Your task to perform on an android device: Go to ESPN.com Image 0: 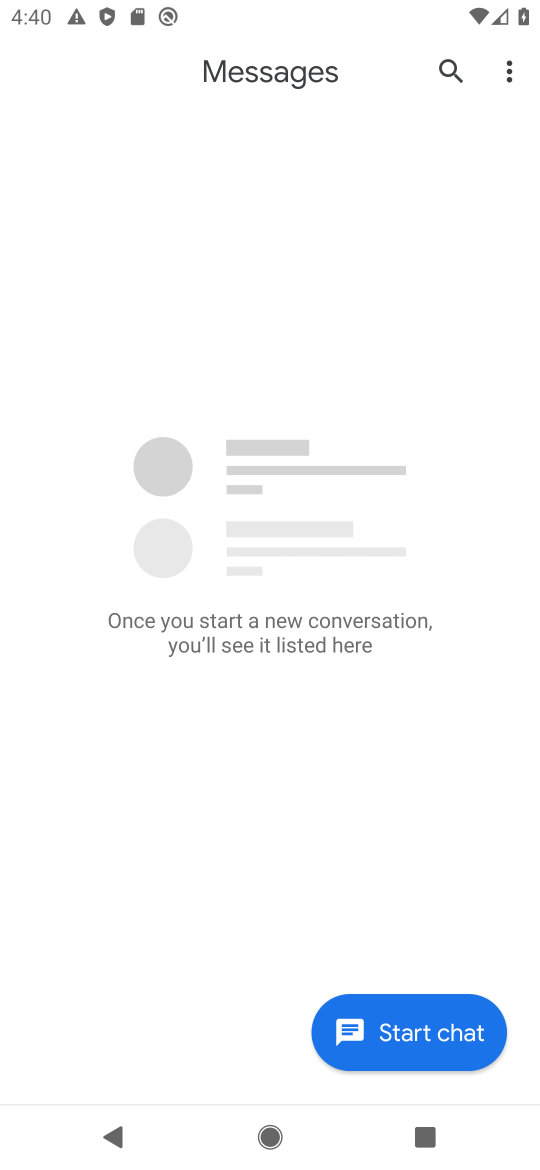
Step 0: press home button
Your task to perform on an android device: Go to ESPN.com Image 1: 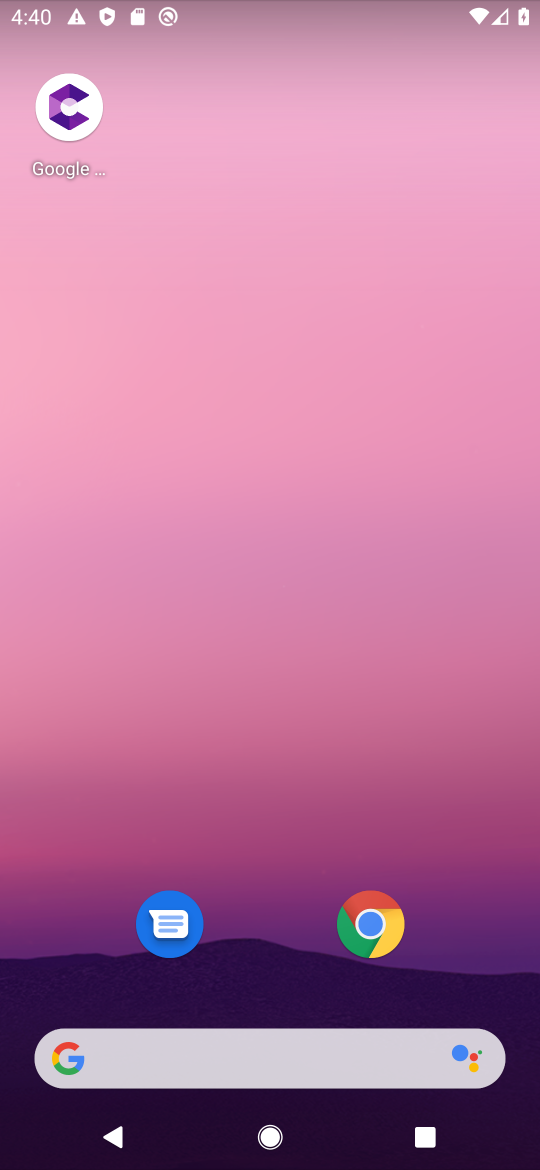
Step 1: click (290, 1058)
Your task to perform on an android device: Go to ESPN.com Image 2: 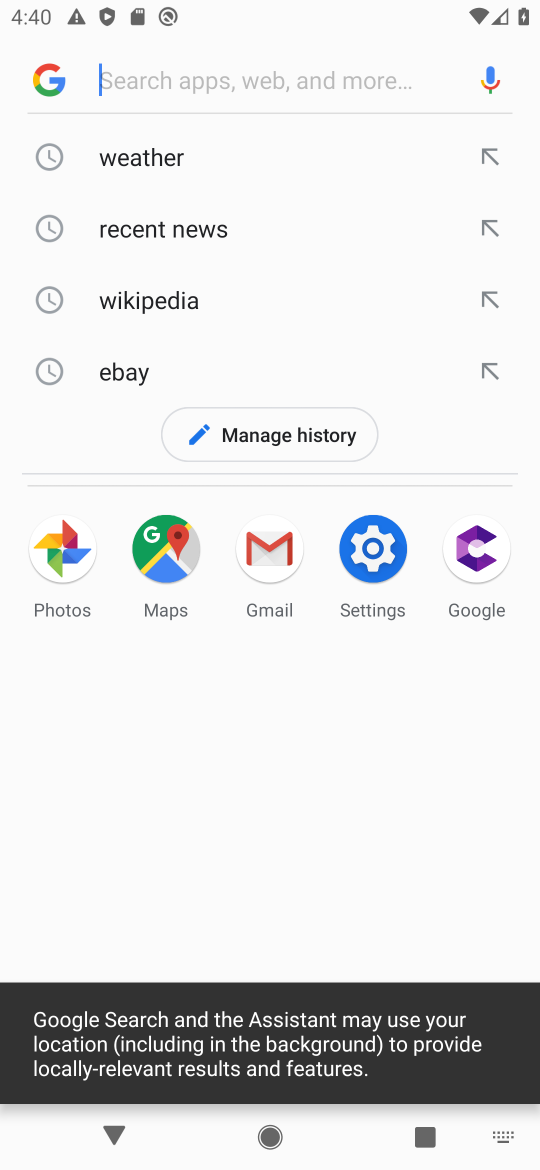
Step 2: click (251, 67)
Your task to perform on an android device: Go to ESPN.com Image 3: 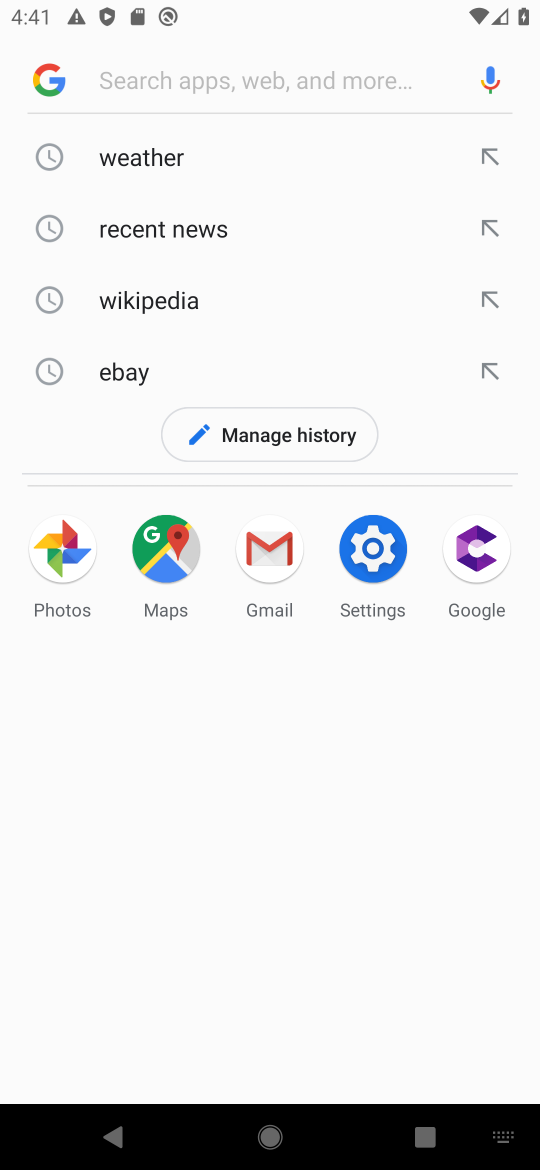
Step 3: type "espn.com"
Your task to perform on an android device: Go to ESPN.com Image 4: 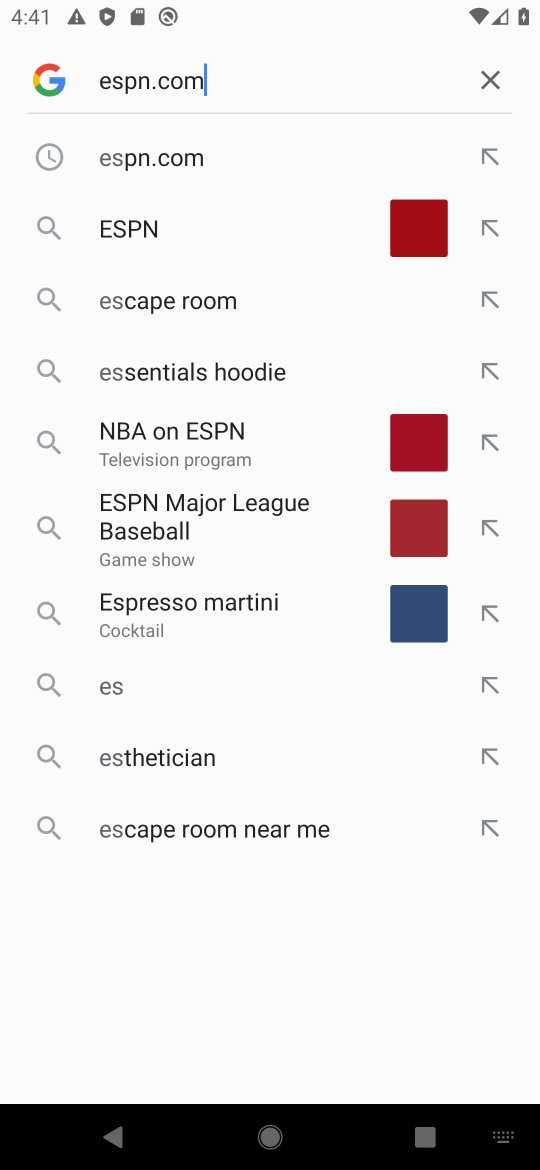
Step 4: task complete